Your task to perform on an android device: open app "Microsoft Excel" (install if not already installed) and go to login screen Image 0: 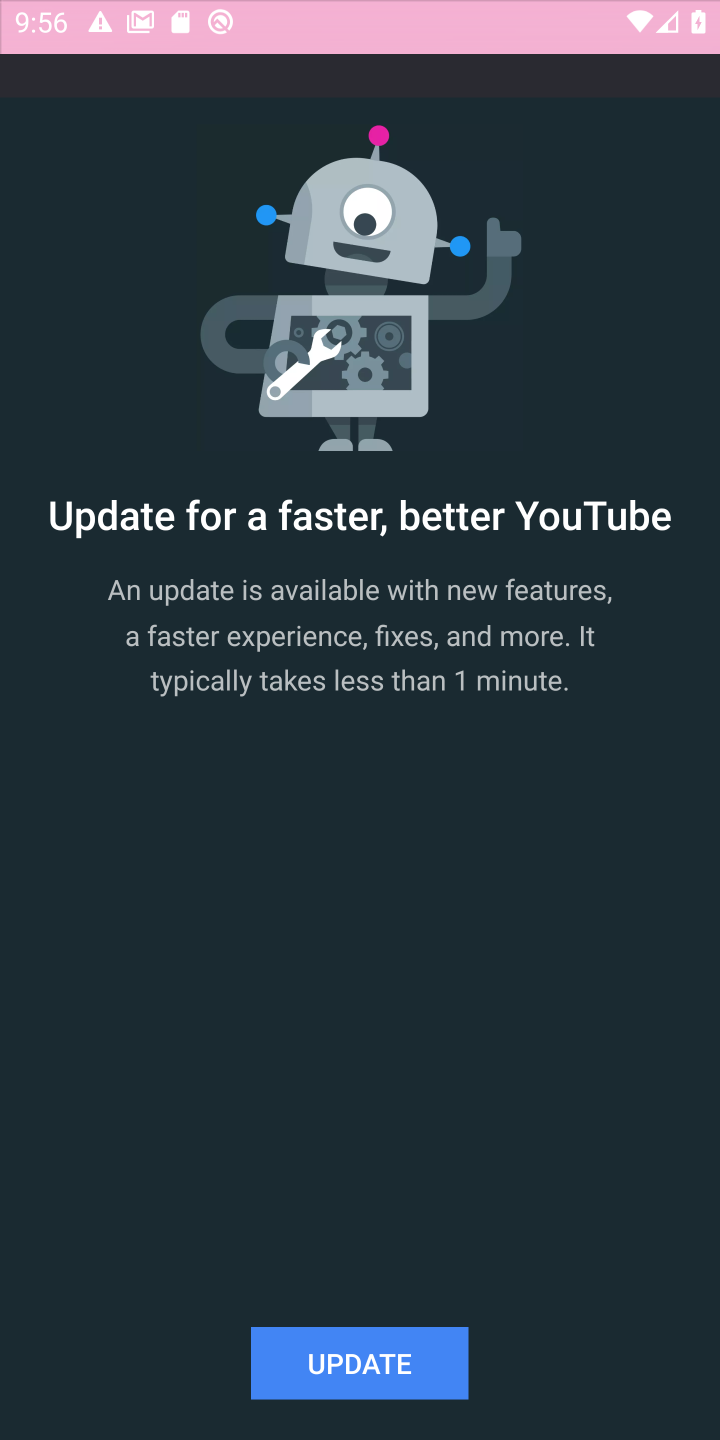
Step 0: press home button
Your task to perform on an android device: open app "Microsoft Excel" (install if not already installed) and go to login screen Image 1: 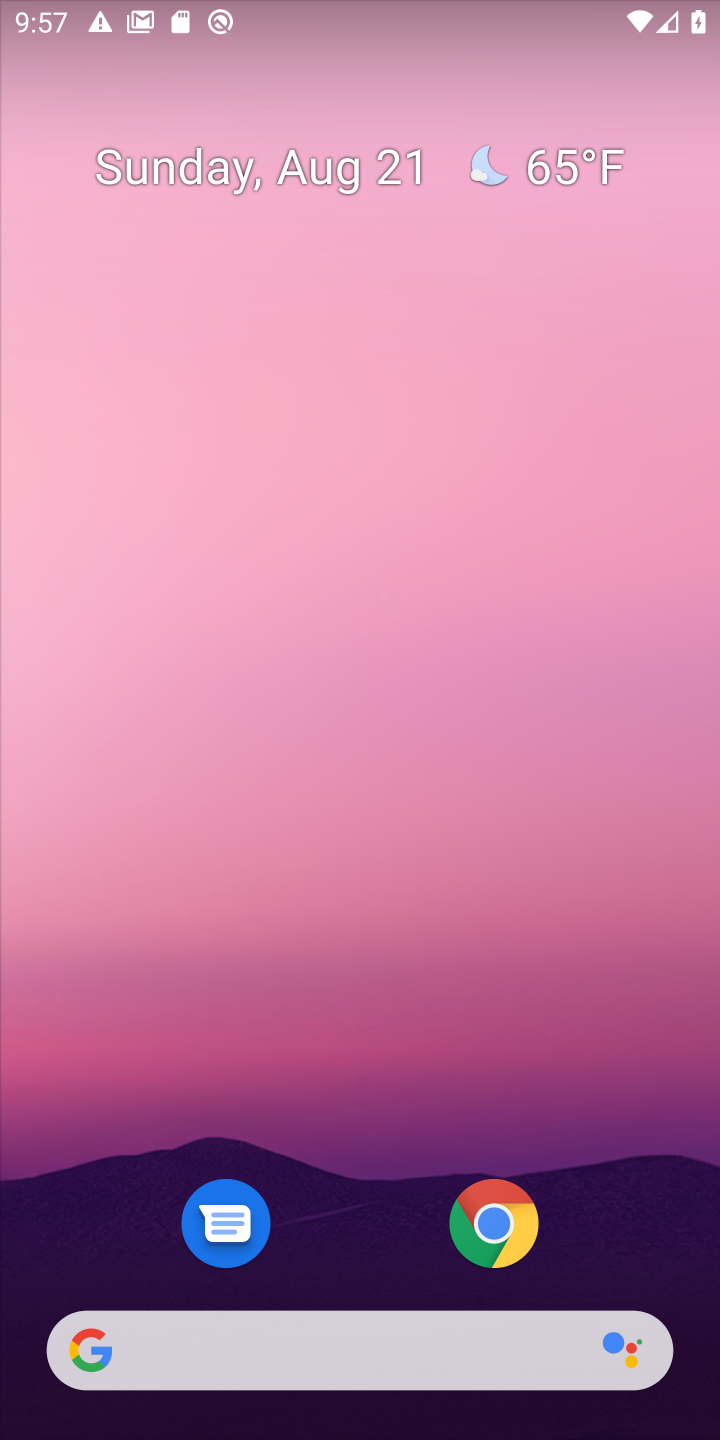
Step 1: drag from (633, 1124) to (663, 223)
Your task to perform on an android device: open app "Microsoft Excel" (install if not already installed) and go to login screen Image 2: 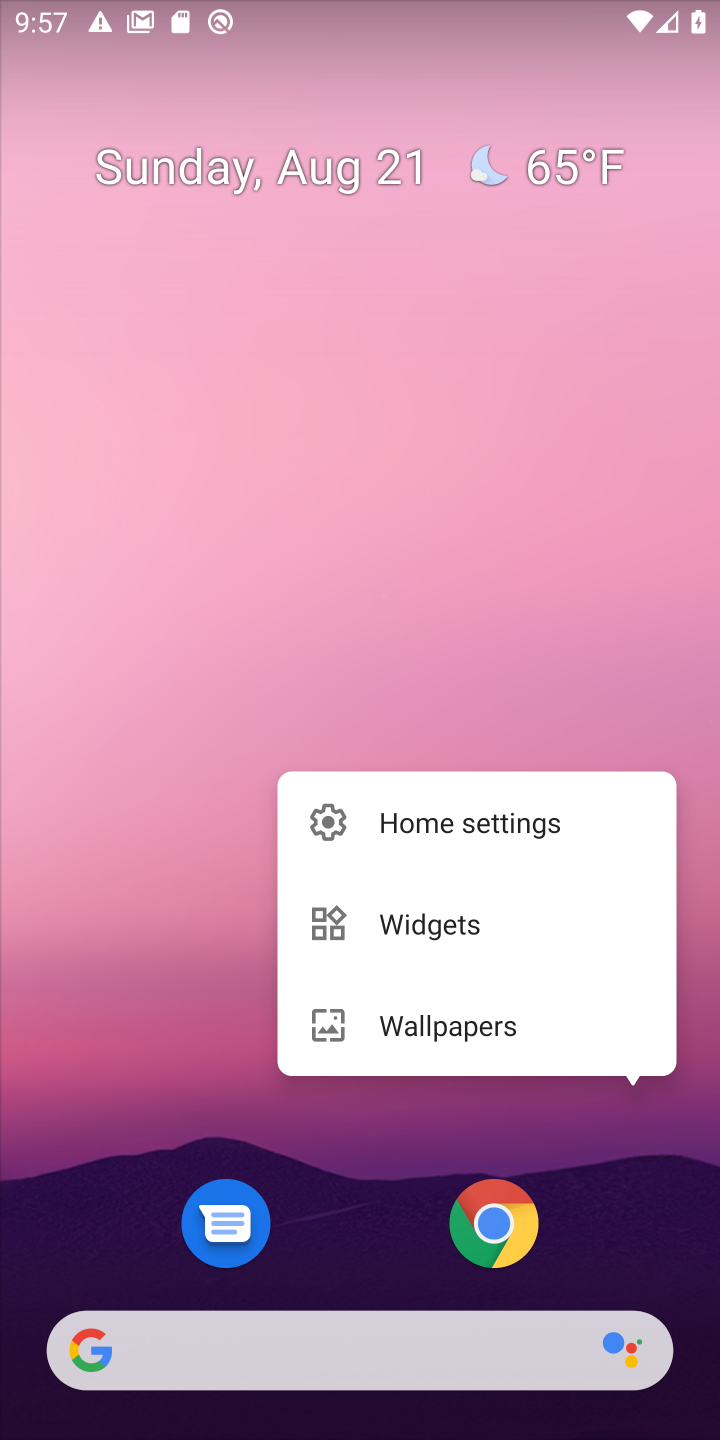
Step 2: click (611, 510)
Your task to perform on an android device: open app "Microsoft Excel" (install if not already installed) and go to login screen Image 3: 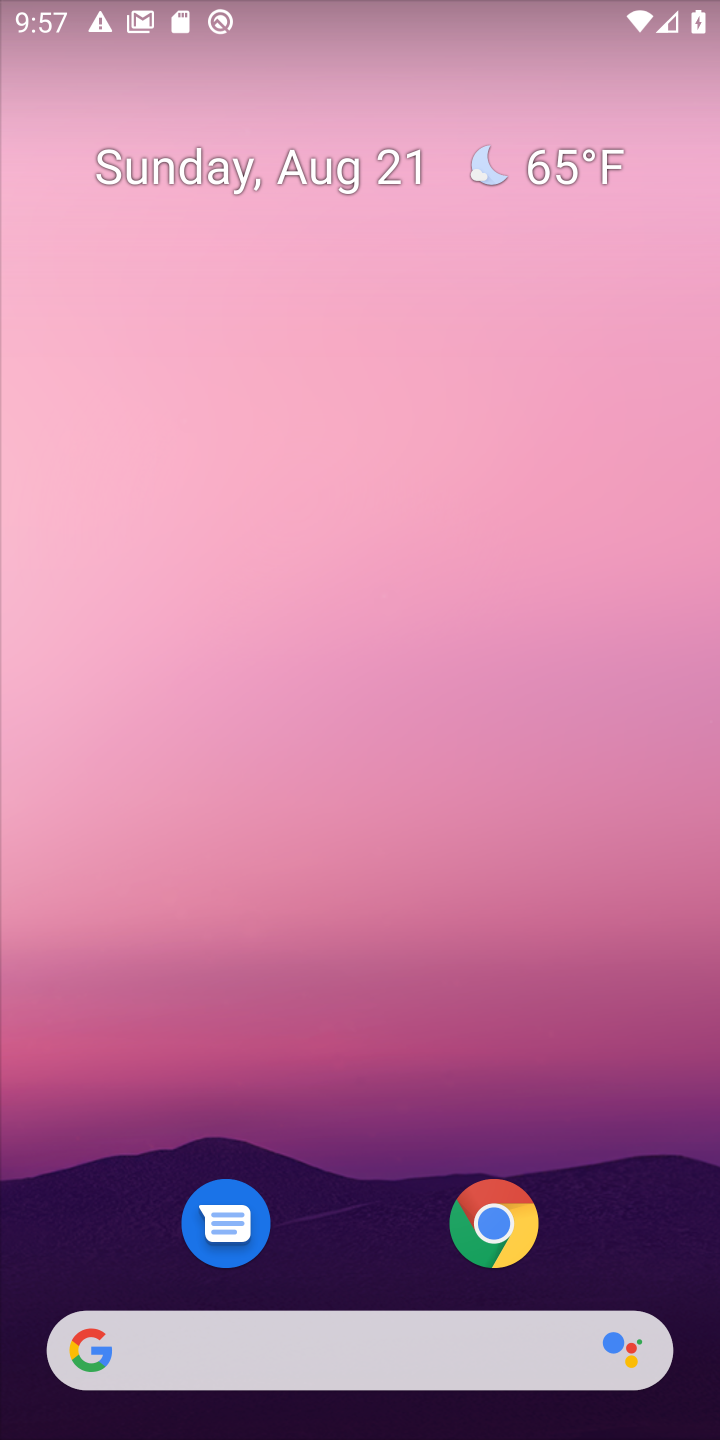
Step 3: drag from (624, 1217) to (584, 37)
Your task to perform on an android device: open app "Microsoft Excel" (install if not already installed) and go to login screen Image 4: 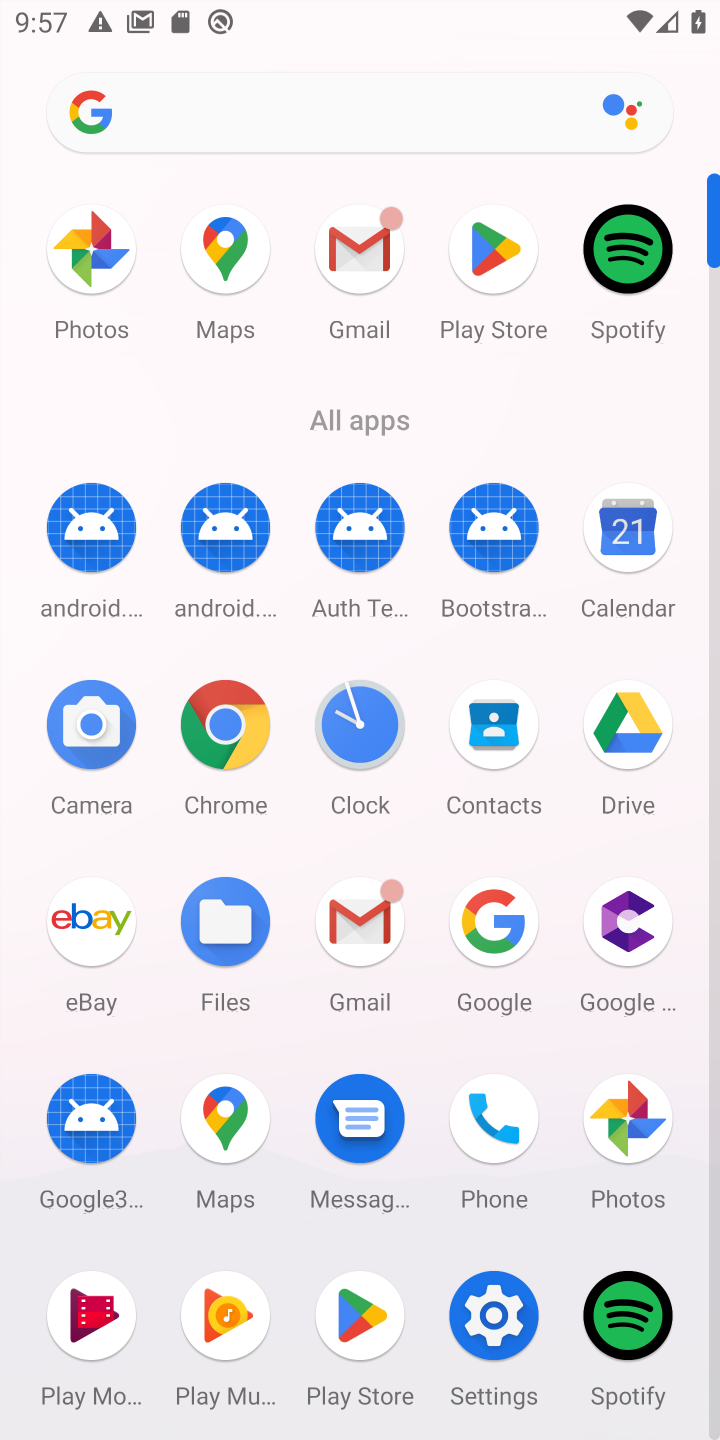
Step 4: click (498, 259)
Your task to perform on an android device: open app "Microsoft Excel" (install if not already installed) and go to login screen Image 5: 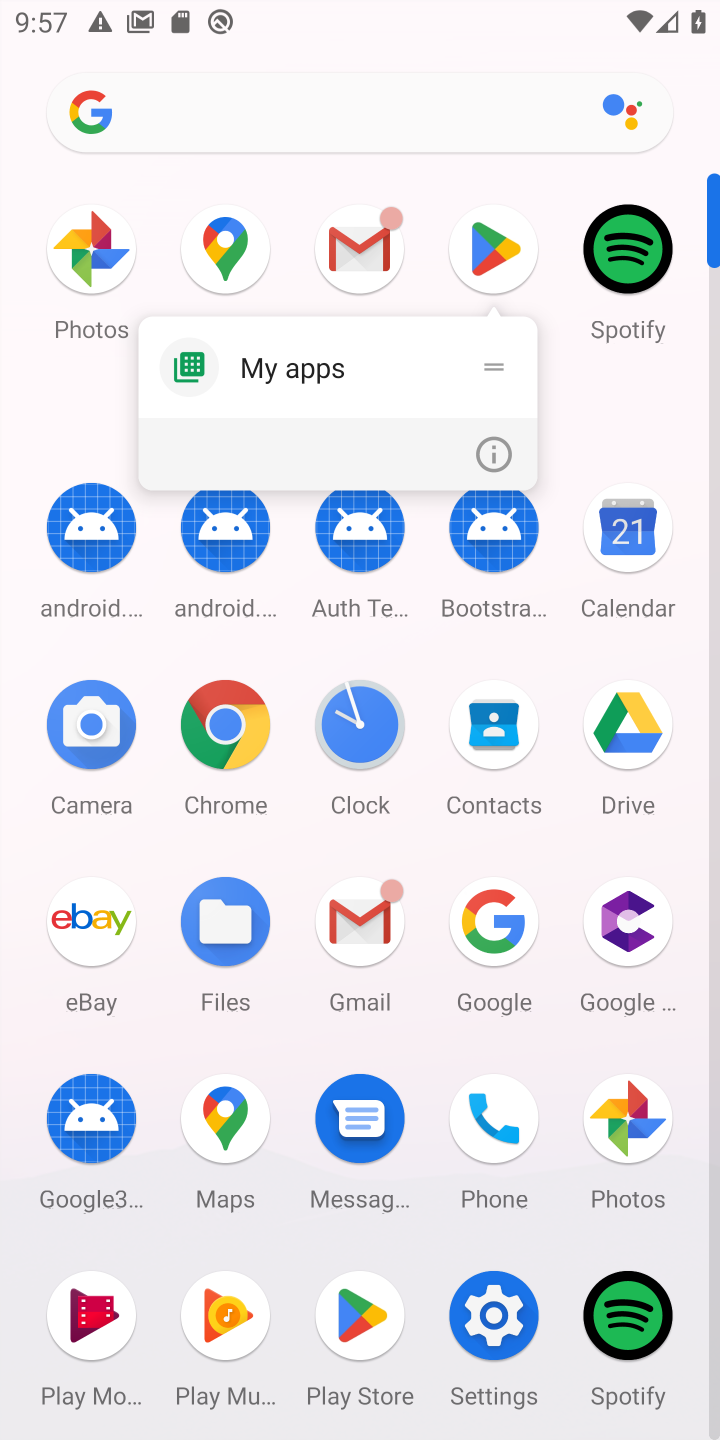
Step 5: click (498, 259)
Your task to perform on an android device: open app "Microsoft Excel" (install if not already installed) and go to login screen Image 6: 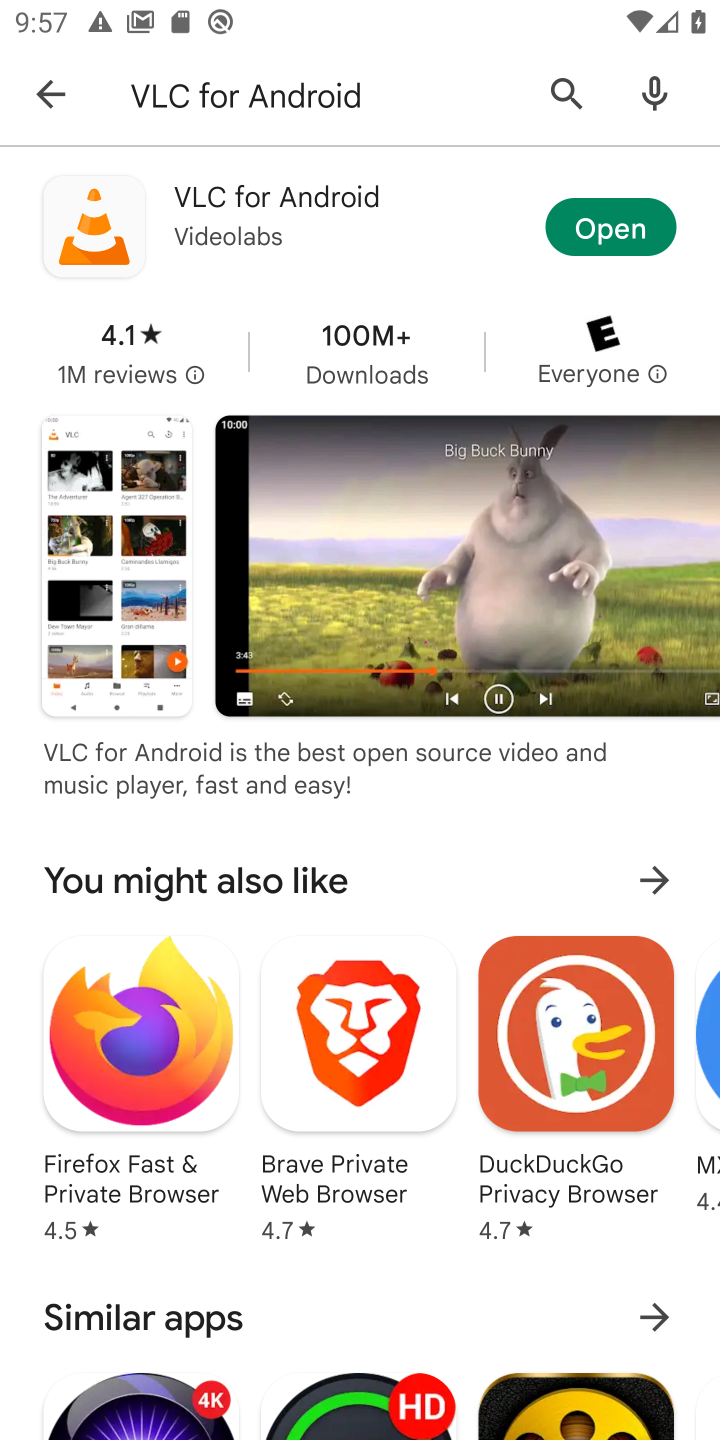
Step 6: press back button
Your task to perform on an android device: open app "Microsoft Excel" (install if not already installed) and go to login screen Image 7: 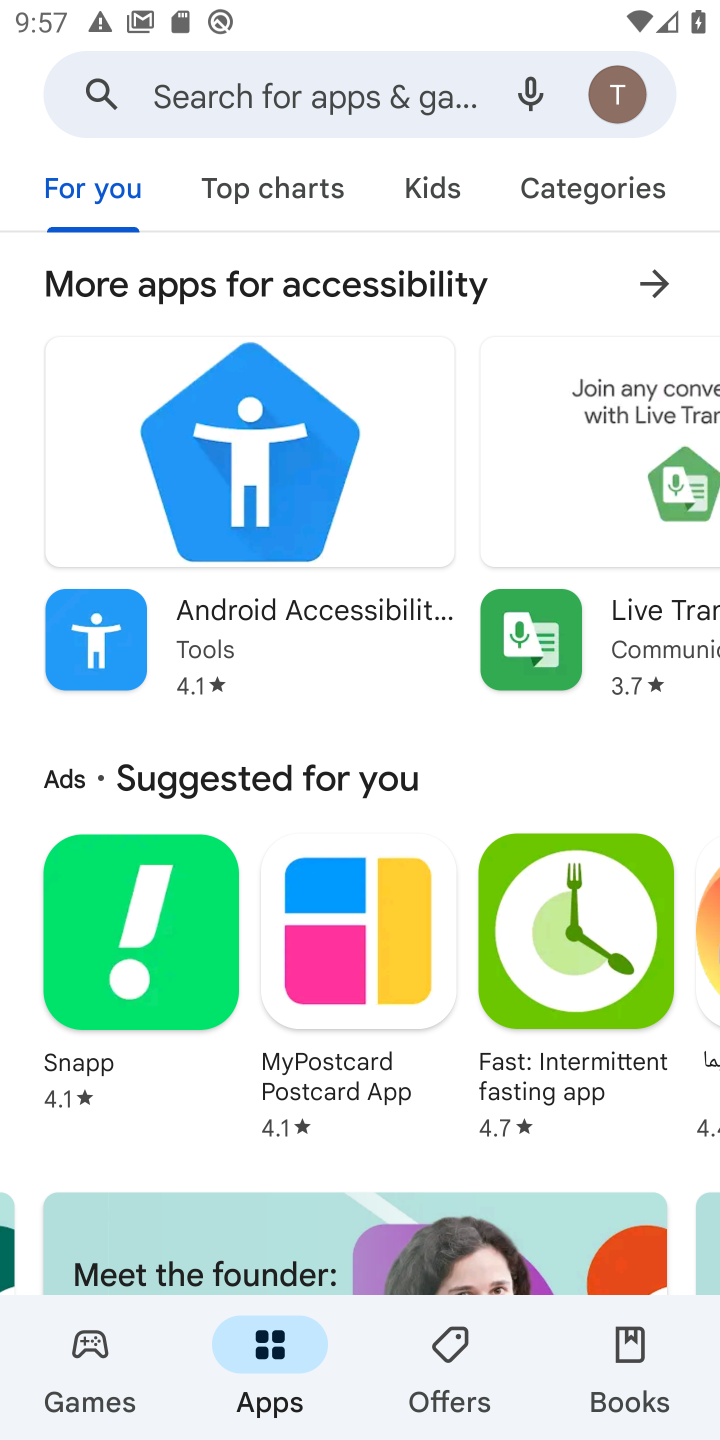
Step 7: click (326, 96)
Your task to perform on an android device: open app "Microsoft Excel" (install if not already installed) and go to login screen Image 8: 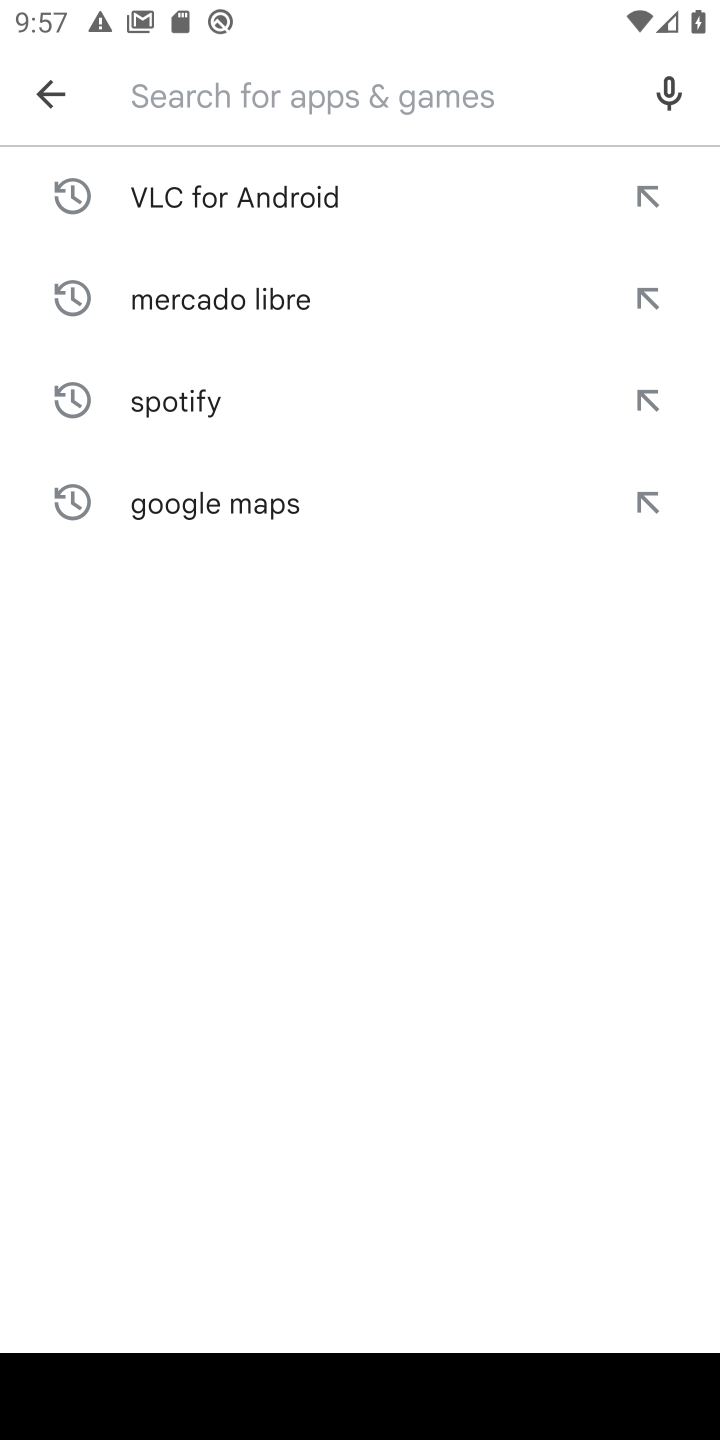
Step 8: type "Microsoft Excel"
Your task to perform on an android device: open app "Microsoft Excel" (install if not already installed) and go to login screen Image 9: 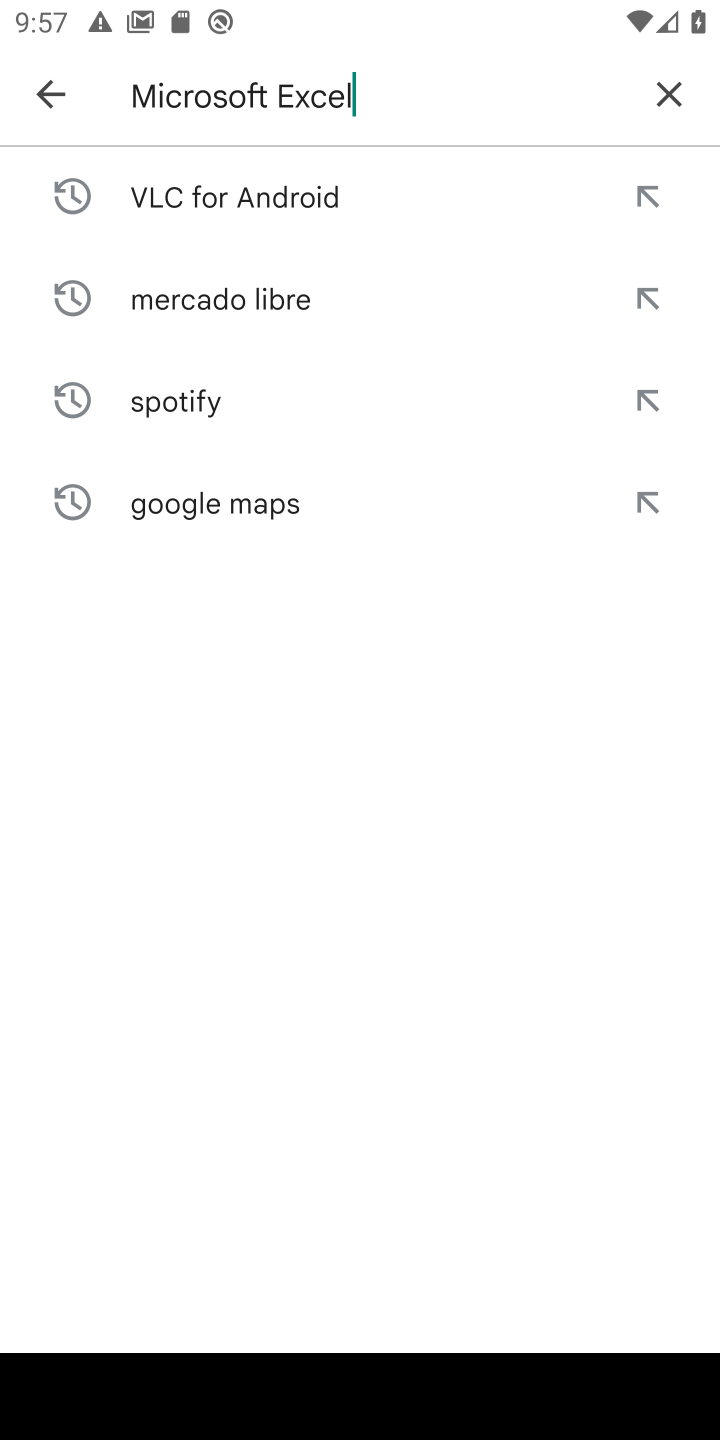
Step 9: press enter
Your task to perform on an android device: open app "Microsoft Excel" (install if not already installed) and go to login screen Image 10: 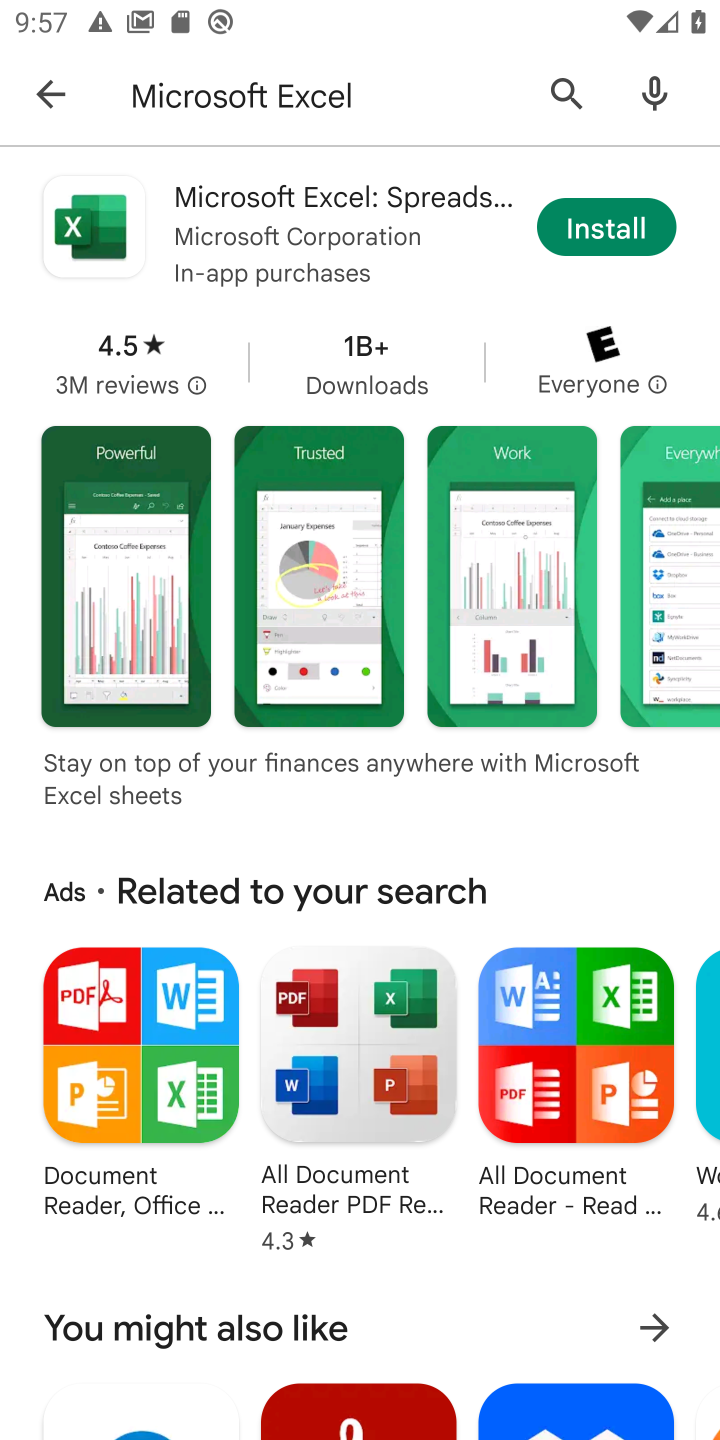
Step 10: click (597, 218)
Your task to perform on an android device: open app "Microsoft Excel" (install if not already installed) and go to login screen Image 11: 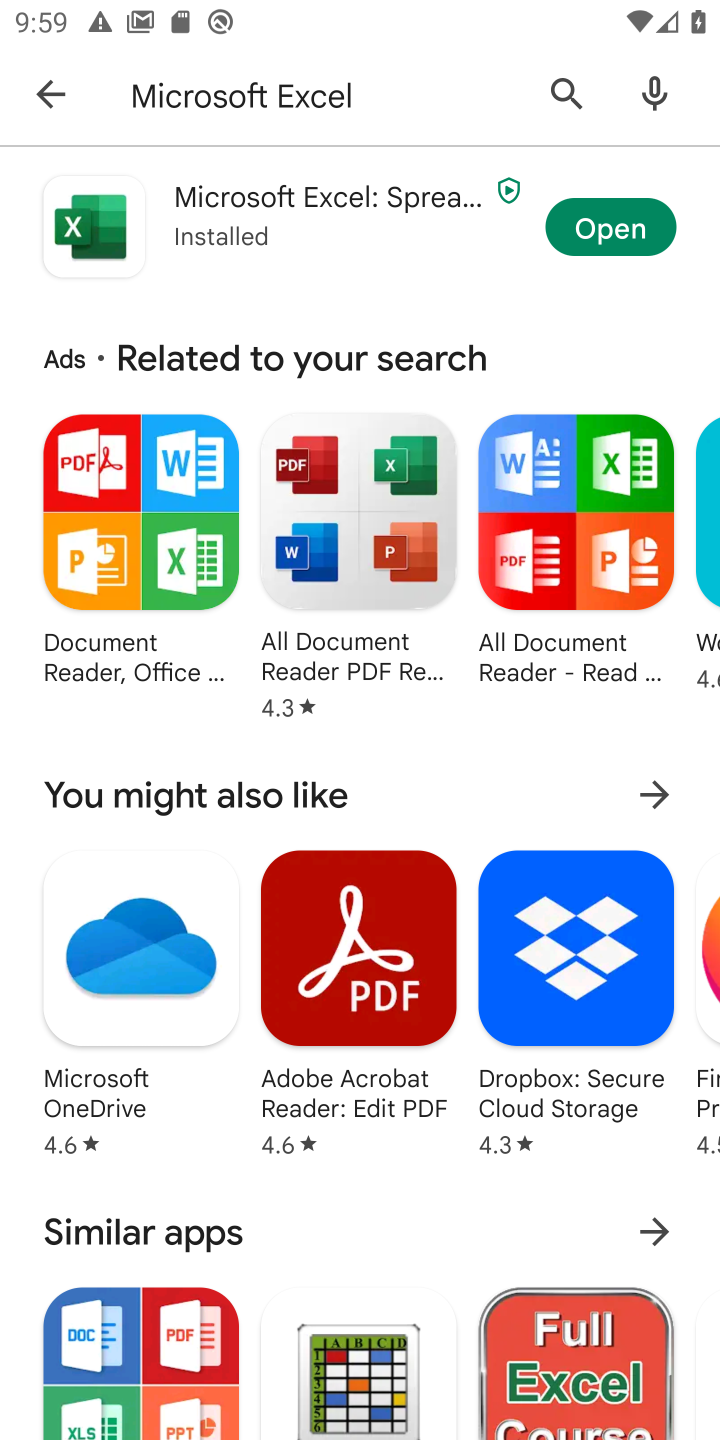
Step 11: click (621, 231)
Your task to perform on an android device: open app "Microsoft Excel" (install if not already installed) and go to login screen Image 12: 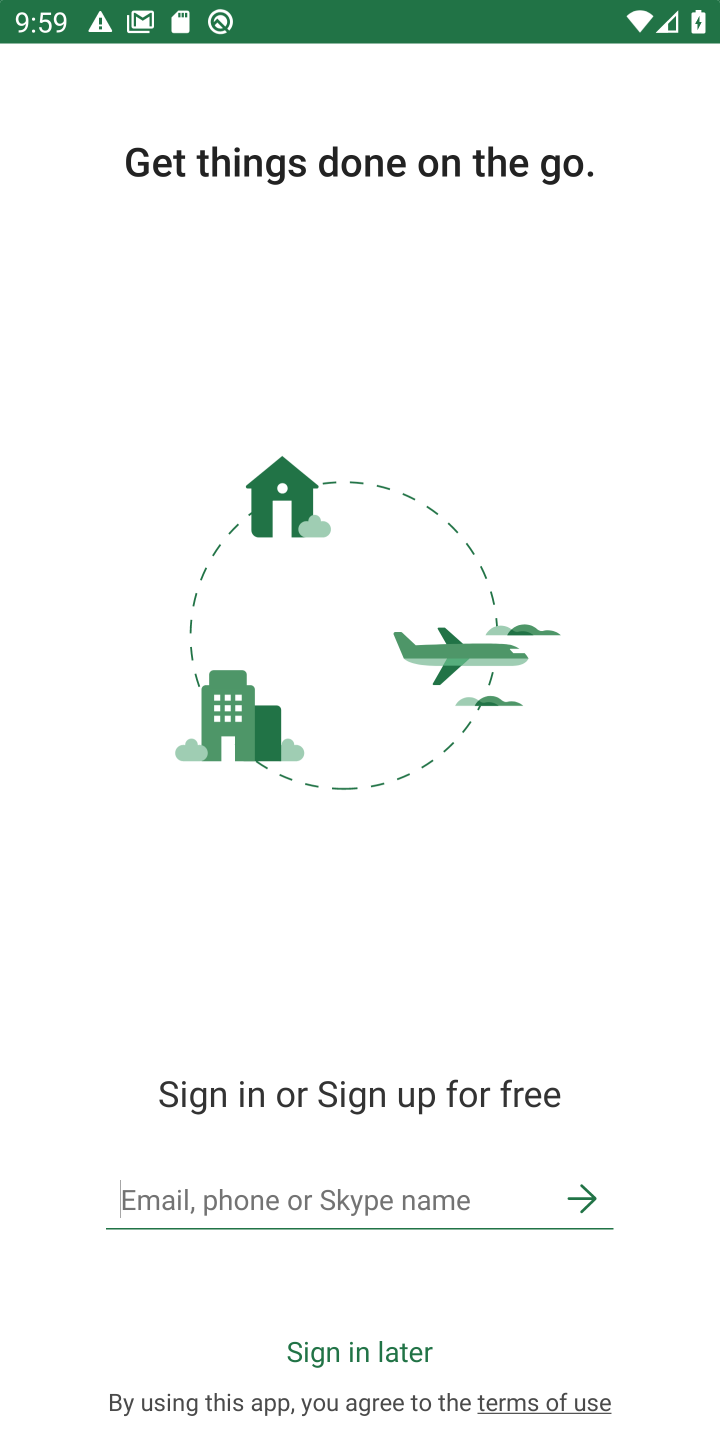
Step 12: task complete